Your task to perform on an android device: Go to Android settings Image 0: 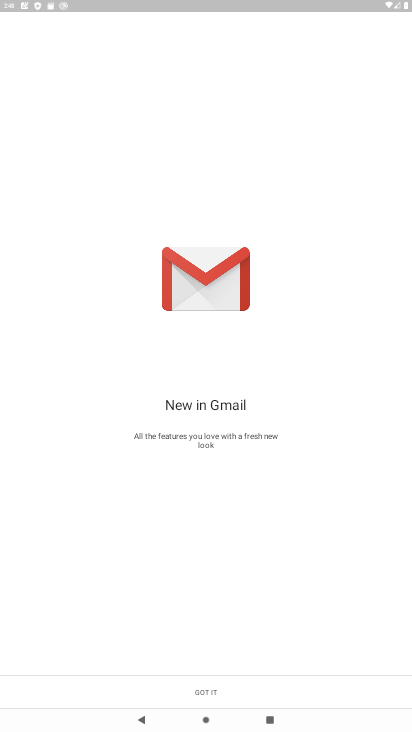
Step 0: press home button
Your task to perform on an android device: Go to Android settings Image 1: 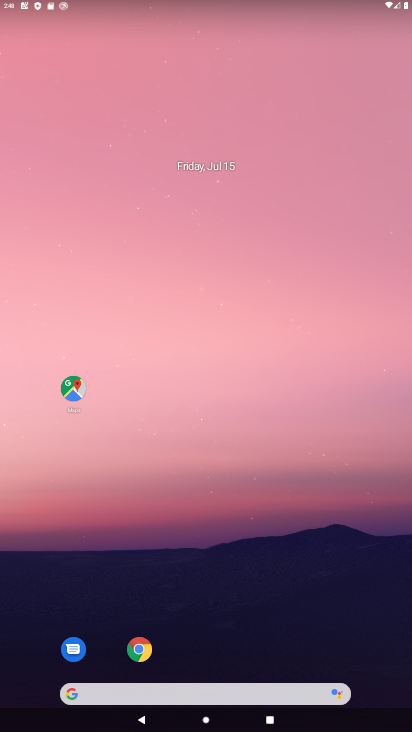
Step 1: drag from (279, 618) to (182, 111)
Your task to perform on an android device: Go to Android settings Image 2: 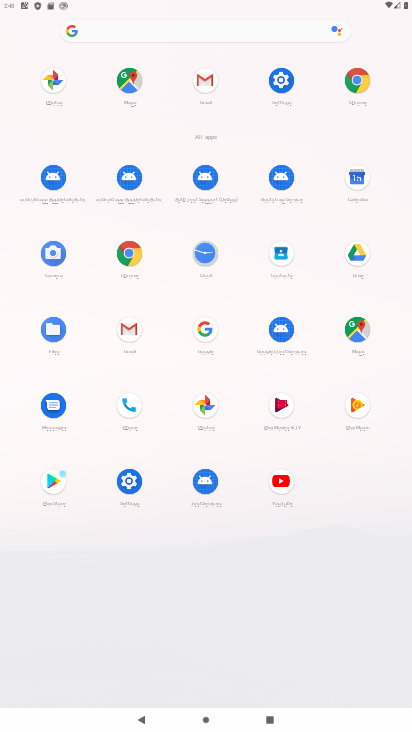
Step 2: click (277, 81)
Your task to perform on an android device: Go to Android settings Image 3: 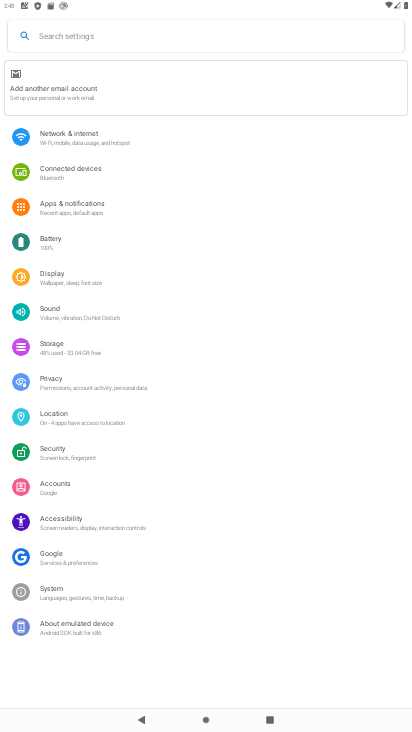
Step 3: task complete